Your task to perform on an android device: turn on priority inbox in the gmail app Image 0: 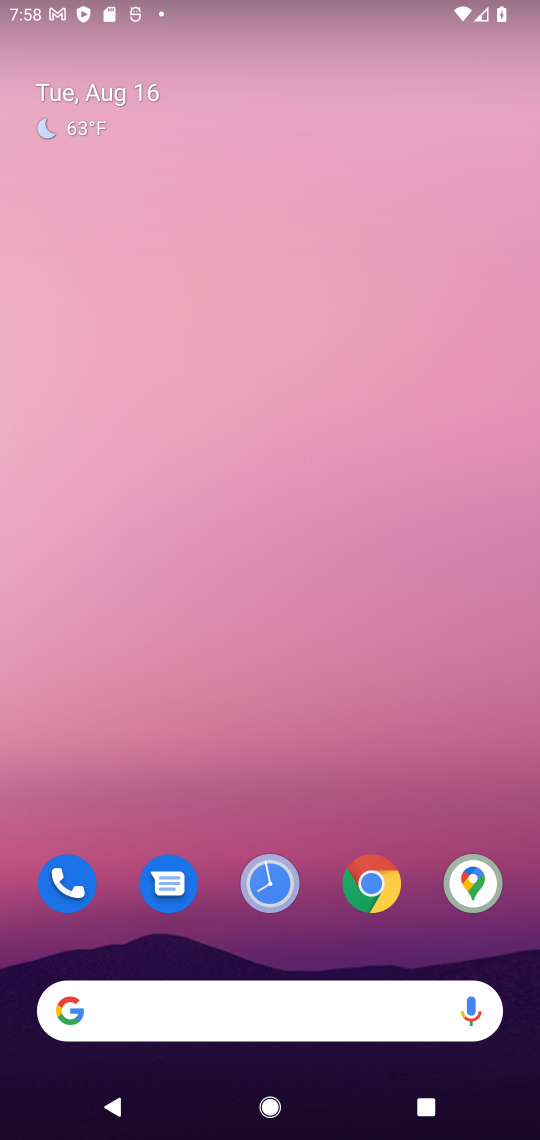
Step 0: drag from (349, 788) to (336, 138)
Your task to perform on an android device: turn on priority inbox in the gmail app Image 1: 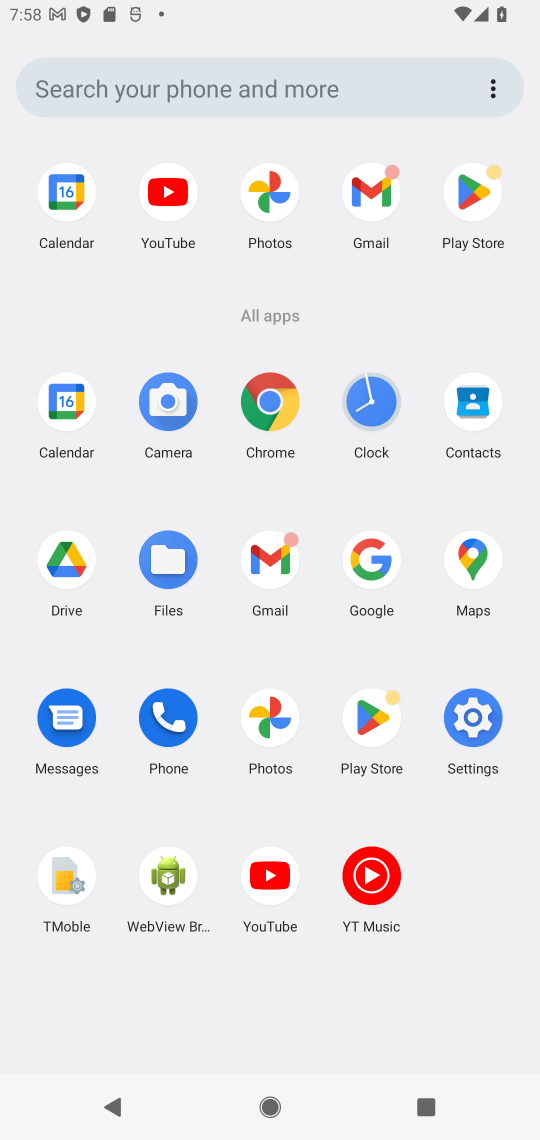
Step 1: click (274, 558)
Your task to perform on an android device: turn on priority inbox in the gmail app Image 2: 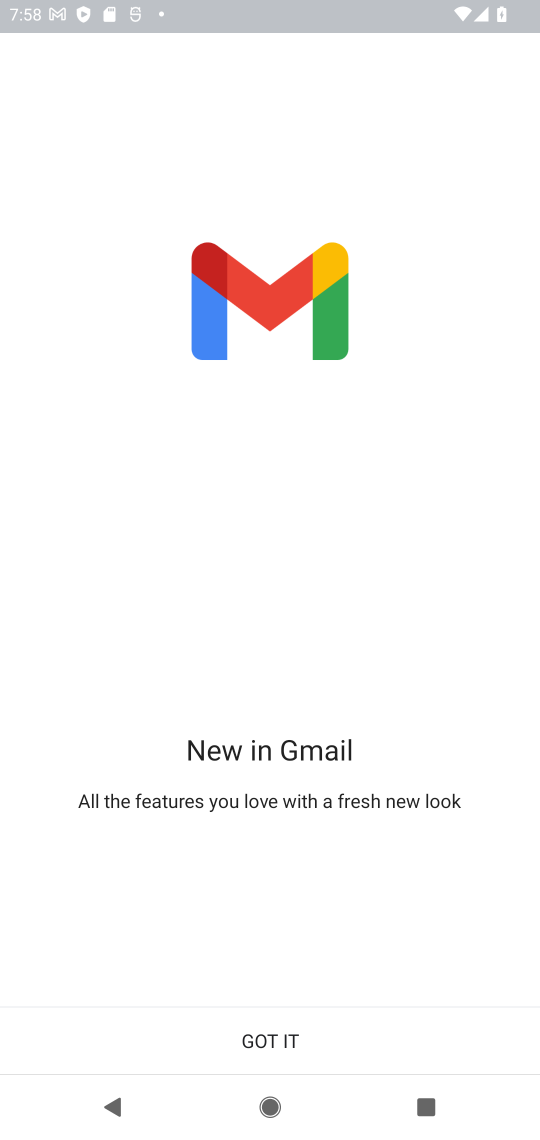
Step 2: click (309, 1040)
Your task to perform on an android device: turn on priority inbox in the gmail app Image 3: 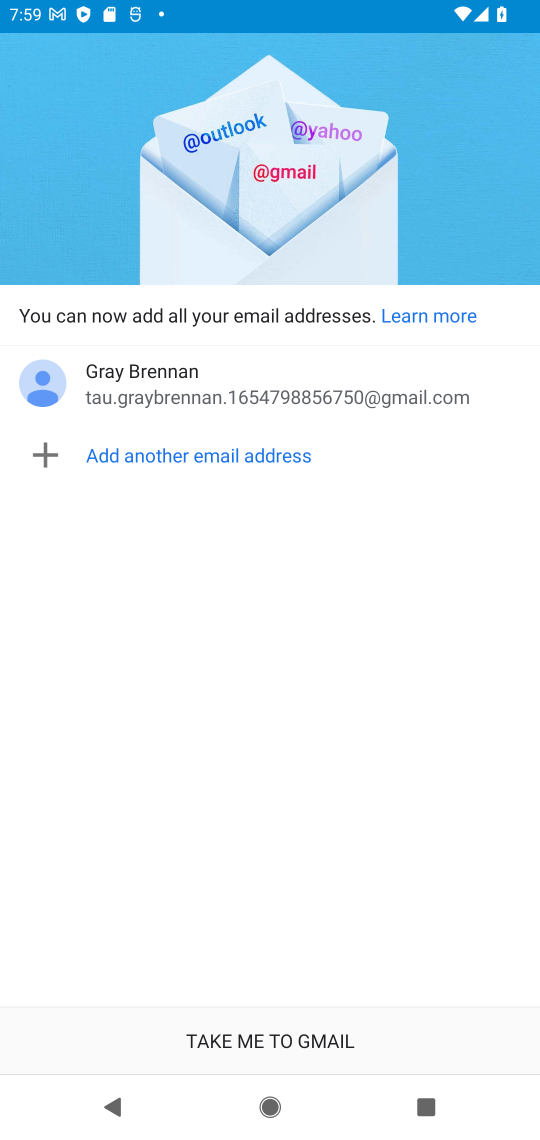
Step 3: click (345, 1026)
Your task to perform on an android device: turn on priority inbox in the gmail app Image 4: 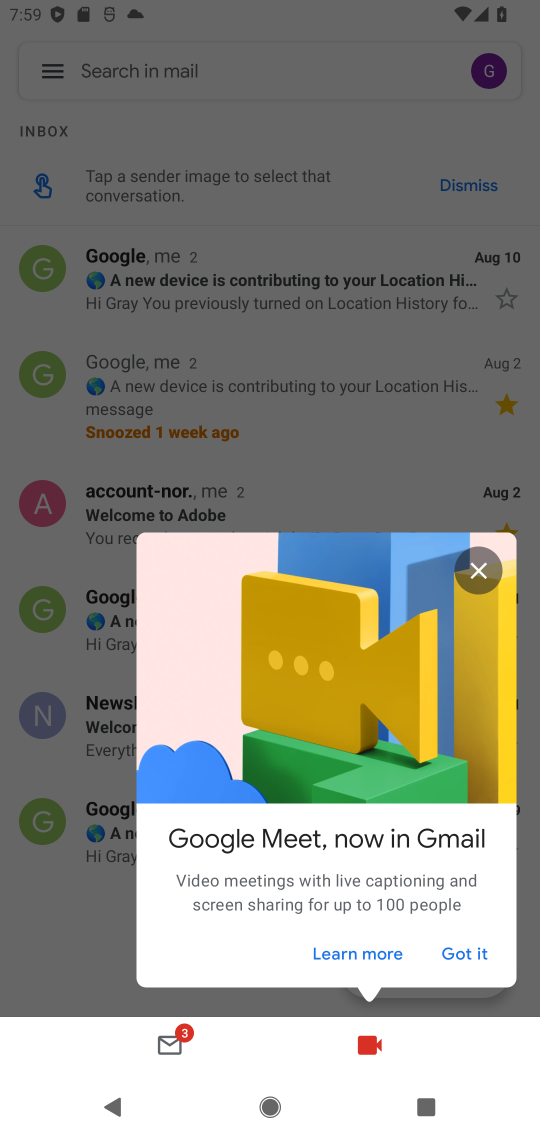
Step 4: click (469, 577)
Your task to perform on an android device: turn on priority inbox in the gmail app Image 5: 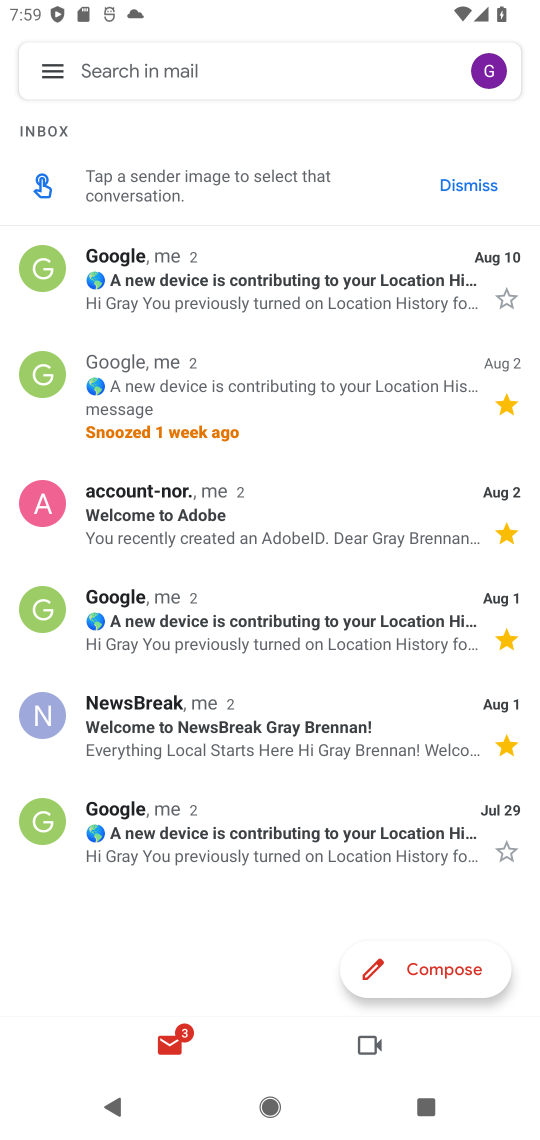
Step 5: click (54, 61)
Your task to perform on an android device: turn on priority inbox in the gmail app Image 6: 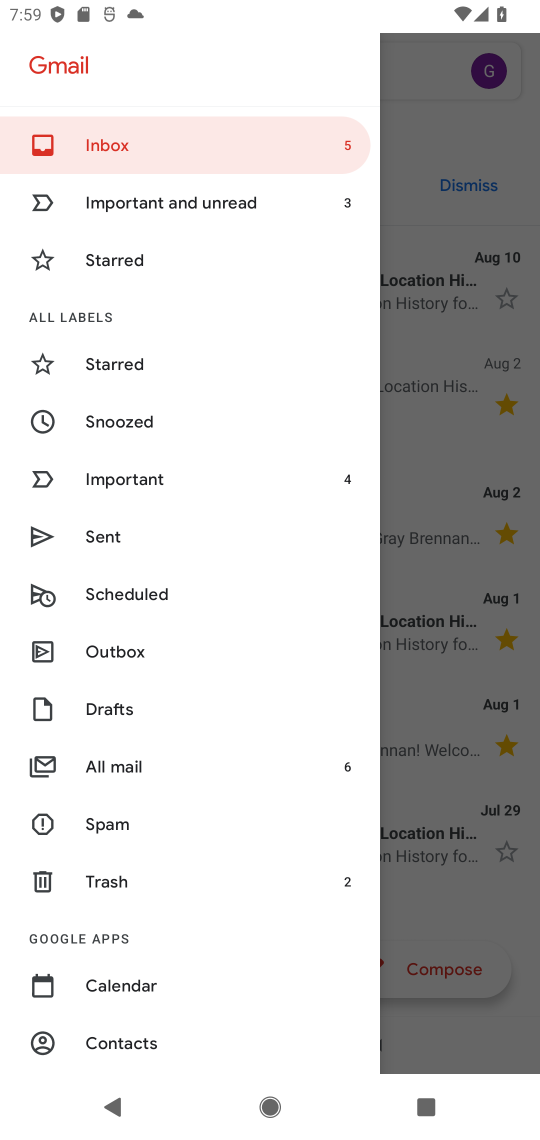
Step 6: drag from (260, 940) to (223, 429)
Your task to perform on an android device: turn on priority inbox in the gmail app Image 7: 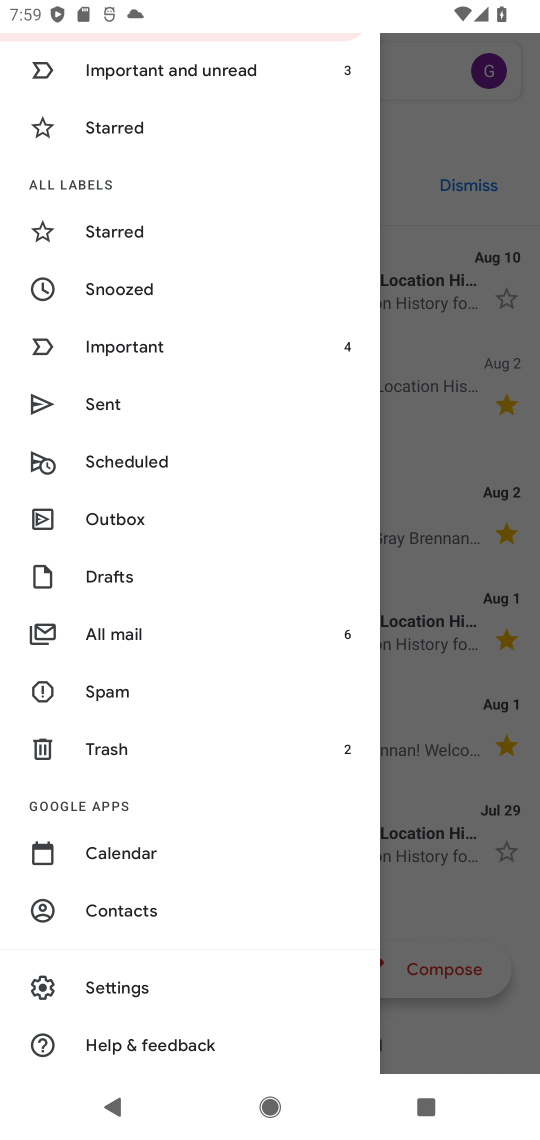
Step 7: click (98, 988)
Your task to perform on an android device: turn on priority inbox in the gmail app Image 8: 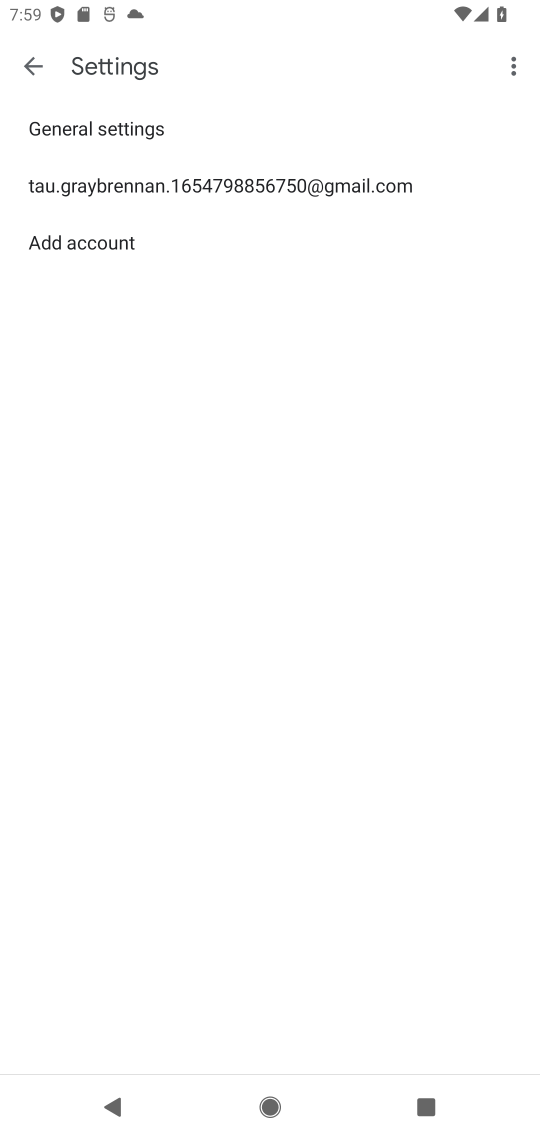
Step 8: click (137, 178)
Your task to perform on an android device: turn on priority inbox in the gmail app Image 9: 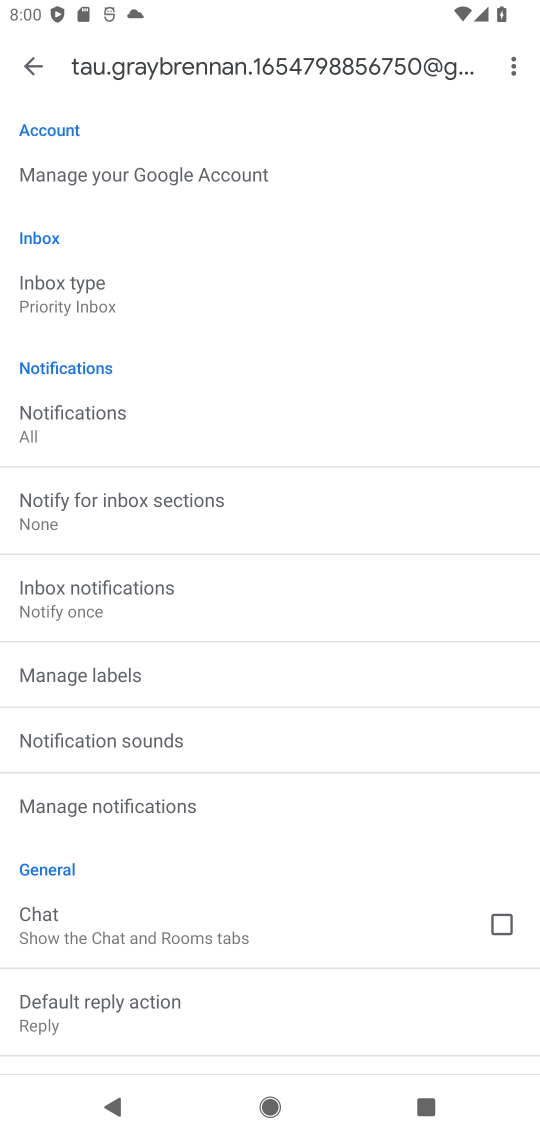
Step 9: task complete